Your task to perform on an android device: open a new tab in the chrome app Image 0: 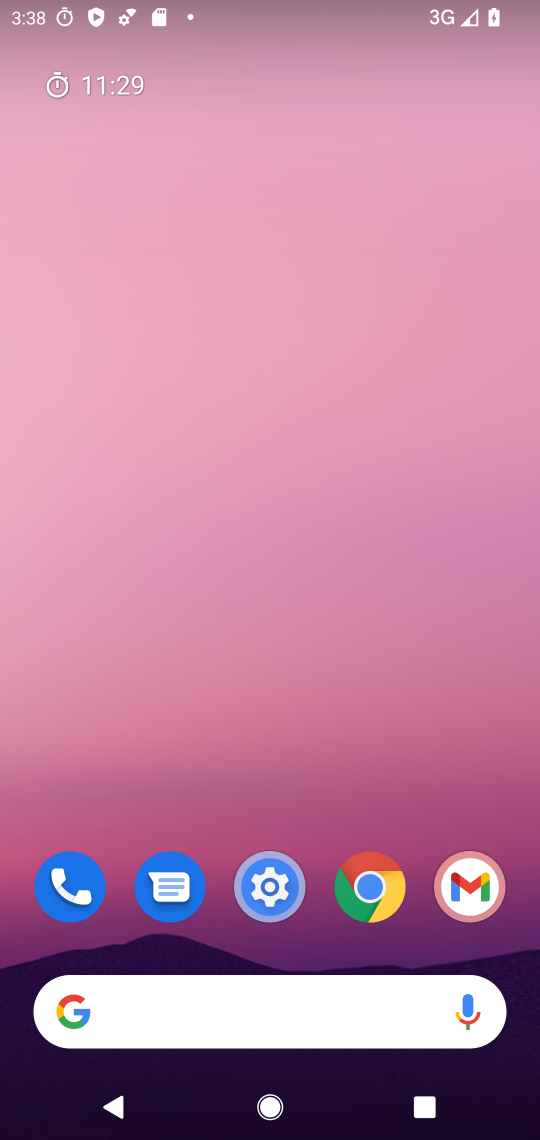
Step 0: press home button
Your task to perform on an android device: open a new tab in the chrome app Image 1: 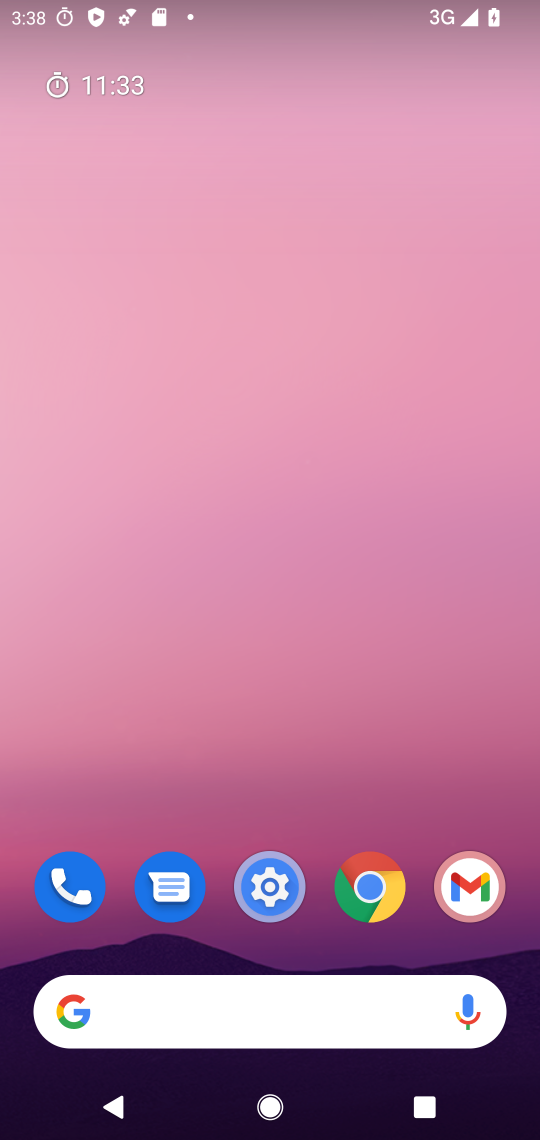
Step 1: drag from (403, 813) to (416, 320)
Your task to perform on an android device: open a new tab in the chrome app Image 2: 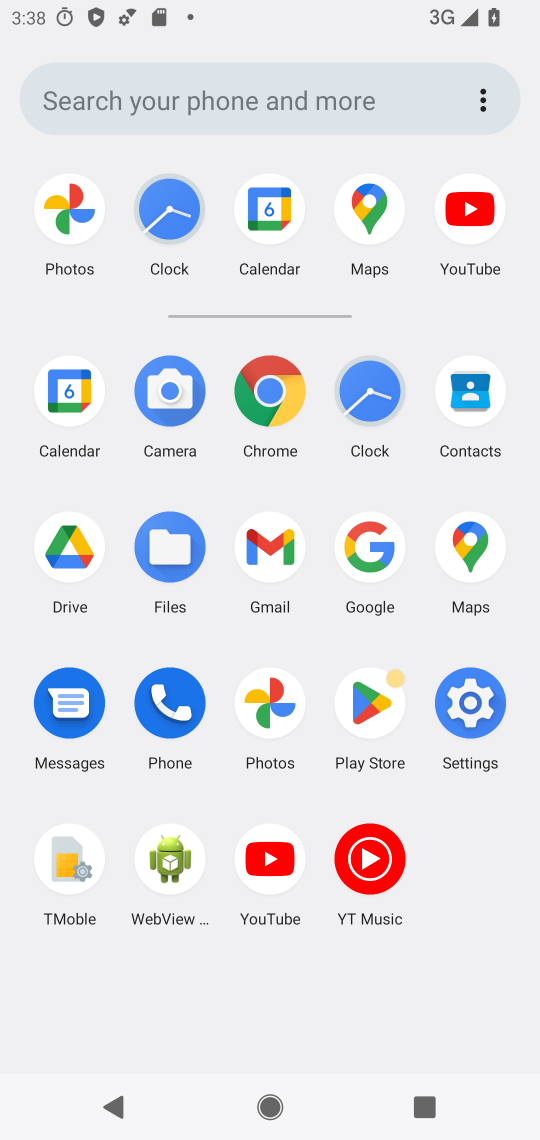
Step 2: click (281, 391)
Your task to perform on an android device: open a new tab in the chrome app Image 3: 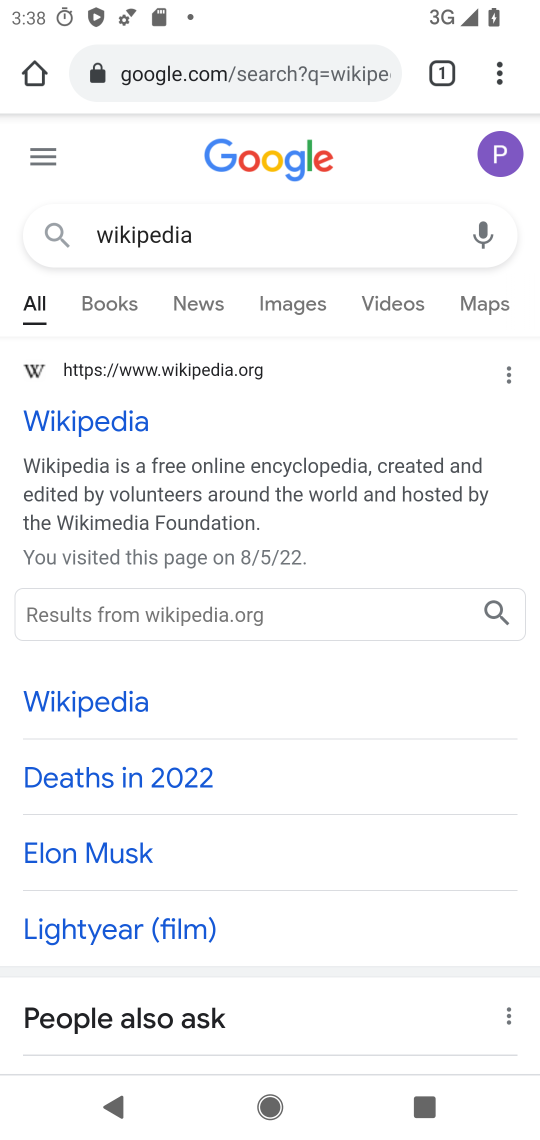
Step 3: click (499, 73)
Your task to perform on an android device: open a new tab in the chrome app Image 4: 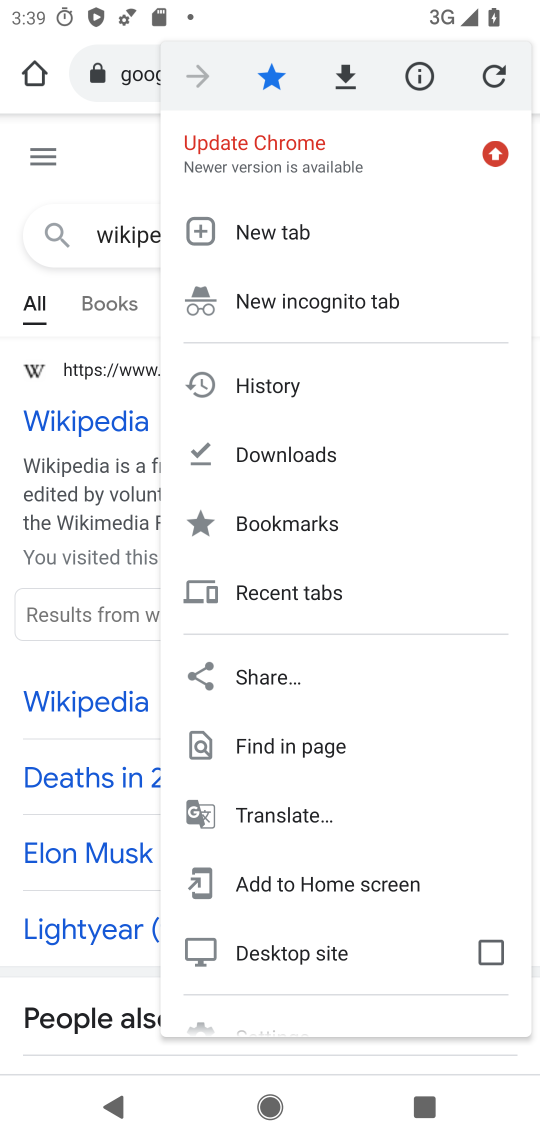
Step 4: click (292, 232)
Your task to perform on an android device: open a new tab in the chrome app Image 5: 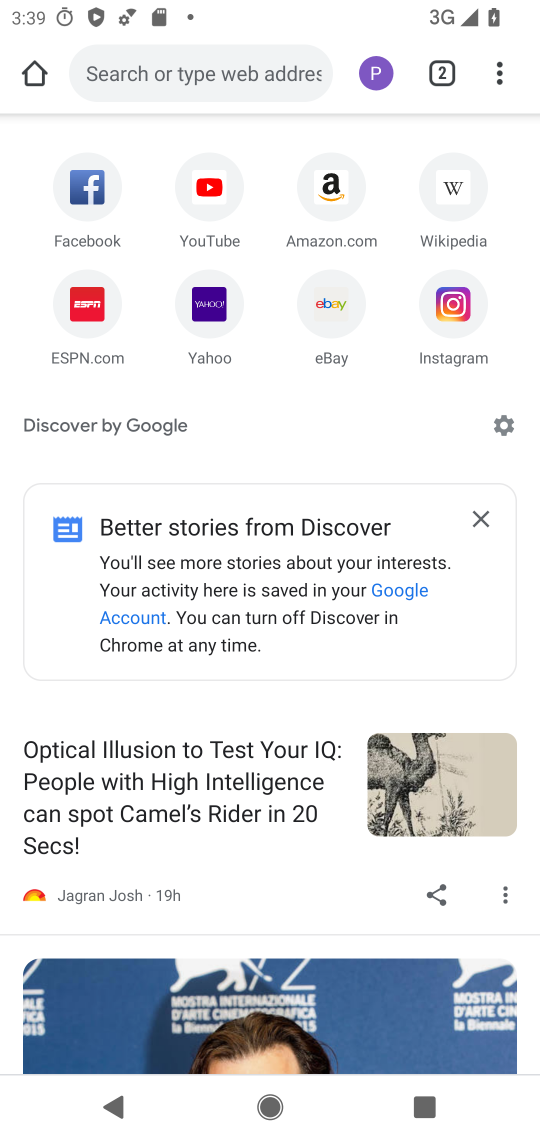
Step 5: task complete